Your task to perform on an android device: snooze an email in the gmail app Image 0: 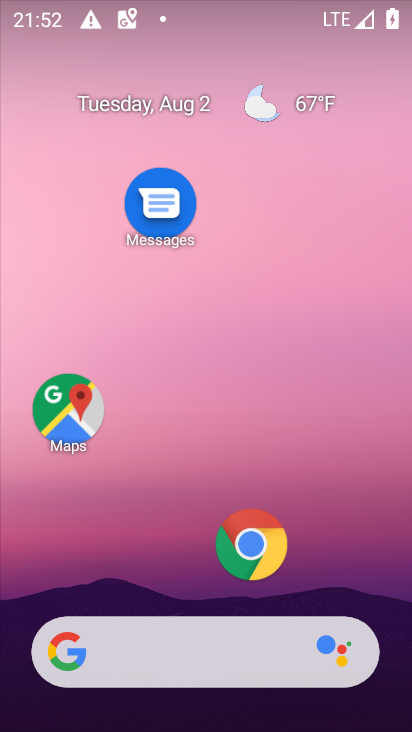
Step 0: drag from (171, 582) to (187, 205)
Your task to perform on an android device: snooze an email in the gmail app Image 1: 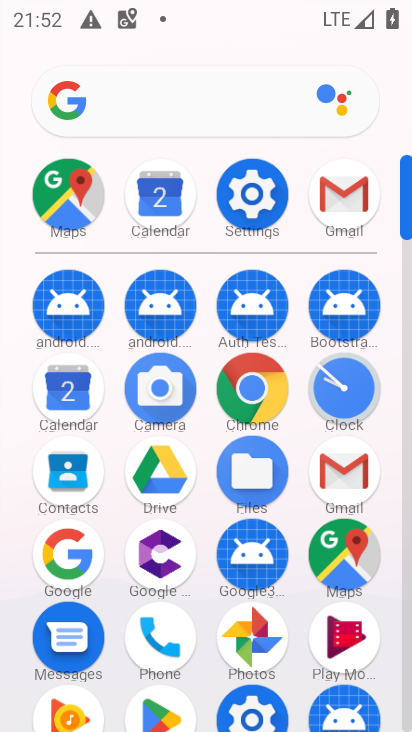
Step 1: click (320, 185)
Your task to perform on an android device: snooze an email in the gmail app Image 2: 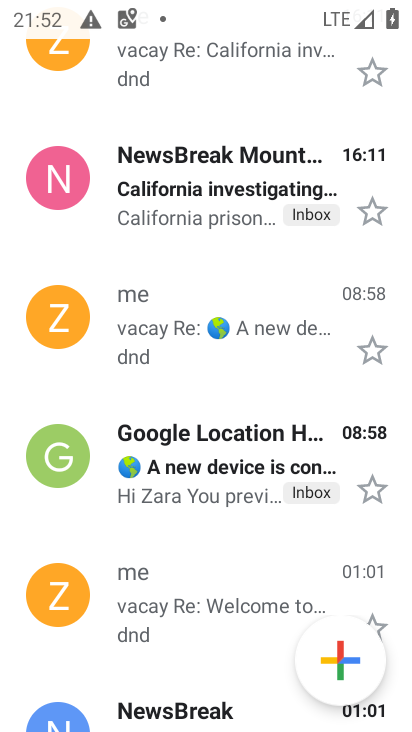
Step 2: click (225, 189)
Your task to perform on an android device: snooze an email in the gmail app Image 3: 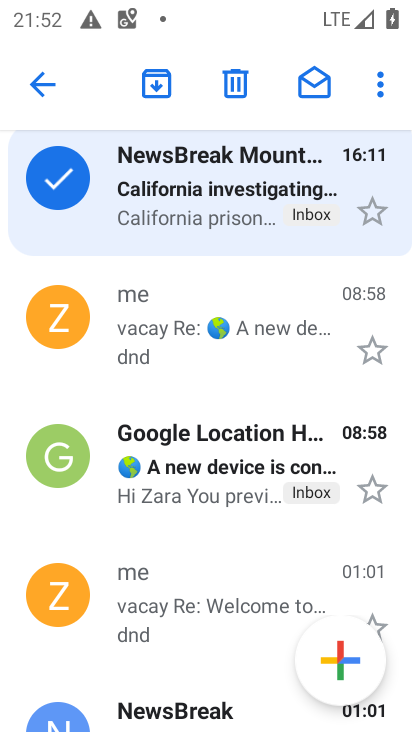
Step 3: click (370, 84)
Your task to perform on an android device: snooze an email in the gmail app Image 4: 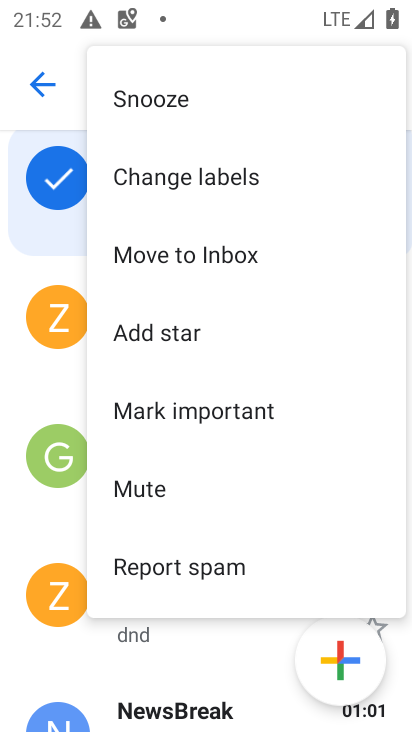
Step 4: click (179, 100)
Your task to perform on an android device: snooze an email in the gmail app Image 5: 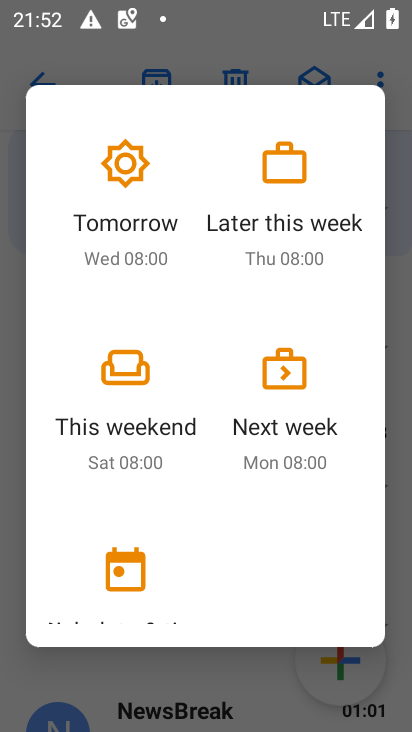
Step 5: click (120, 183)
Your task to perform on an android device: snooze an email in the gmail app Image 6: 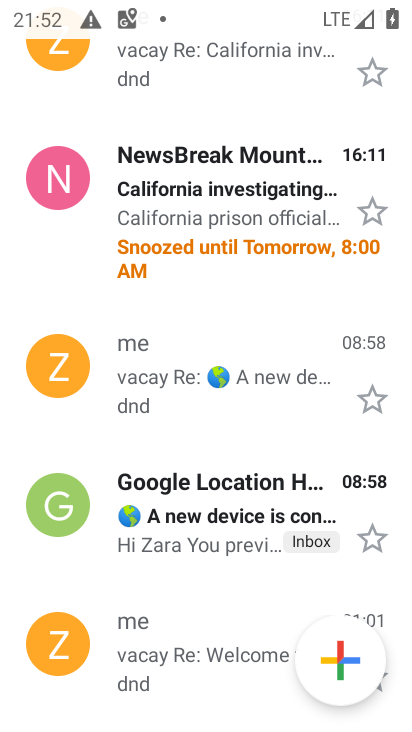
Step 6: task complete